Your task to perform on an android device: Turn on the flashlight Image 0: 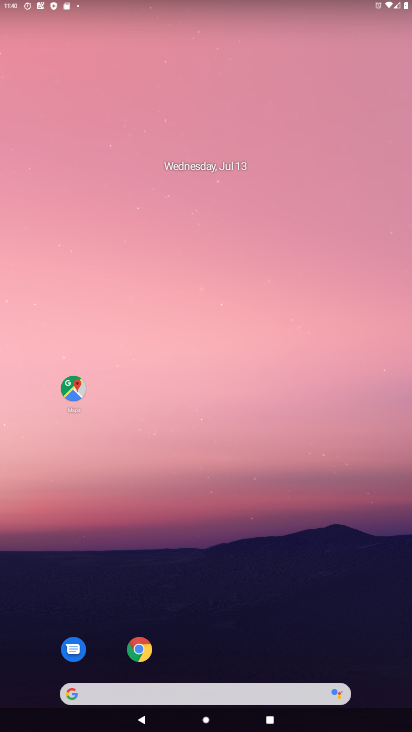
Step 0: drag from (173, 690) to (246, 293)
Your task to perform on an android device: Turn on the flashlight Image 1: 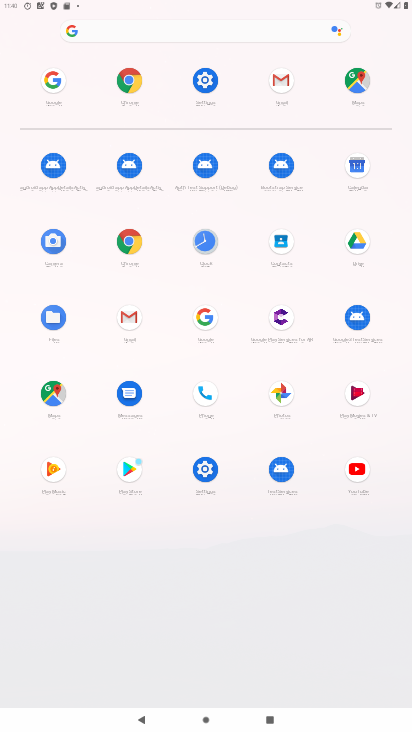
Step 1: click (206, 80)
Your task to perform on an android device: Turn on the flashlight Image 2: 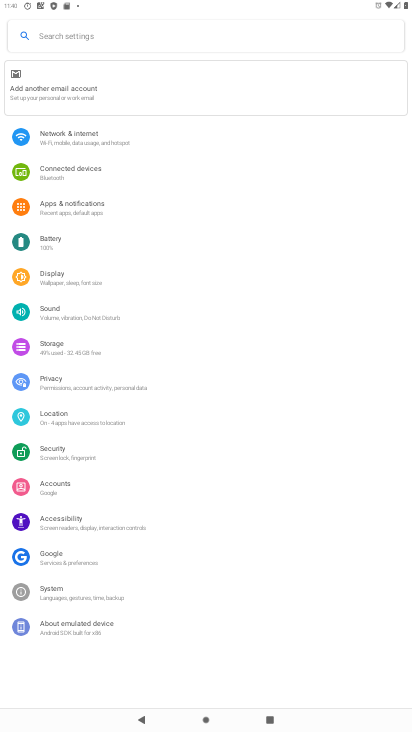
Step 2: click (84, 275)
Your task to perform on an android device: Turn on the flashlight Image 3: 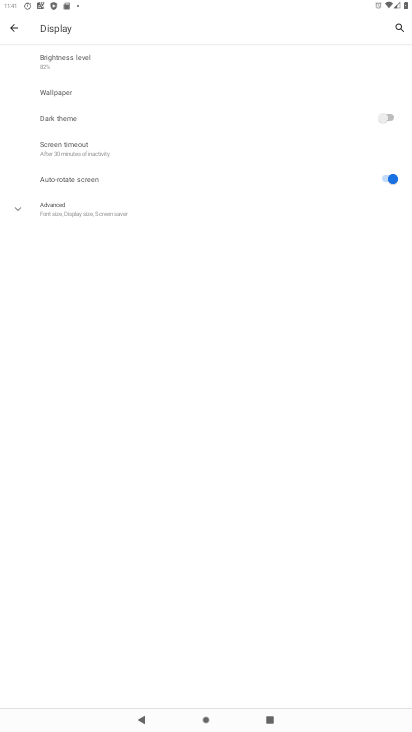
Step 3: click (79, 144)
Your task to perform on an android device: Turn on the flashlight Image 4: 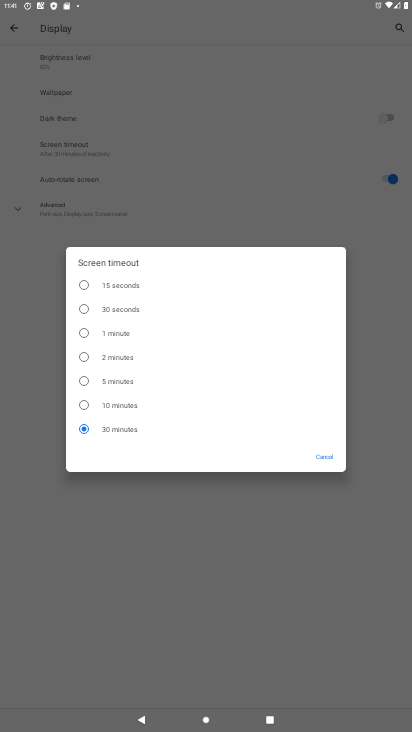
Step 4: click (158, 496)
Your task to perform on an android device: Turn on the flashlight Image 5: 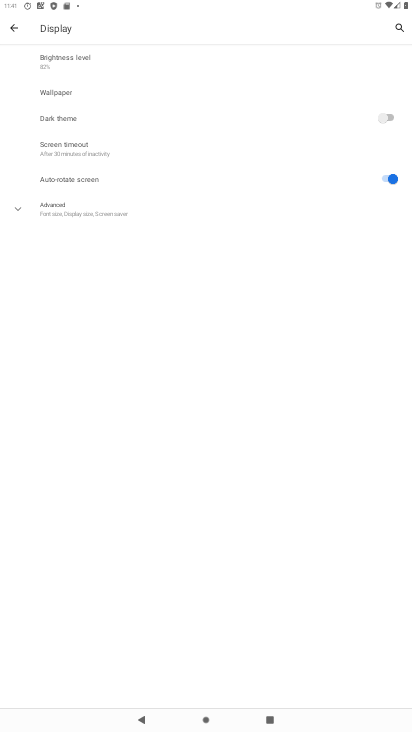
Step 5: click (106, 216)
Your task to perform on an android device: Turn on the flashlight Image 6: 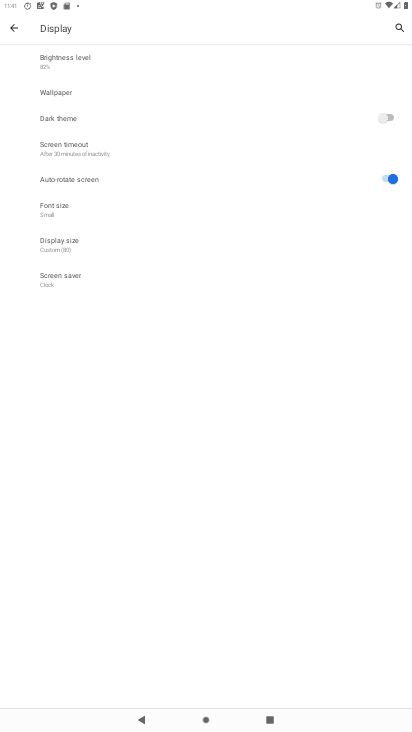
Step 6: click (78, 275)
Your task to perform on an android device: Turn on the flashlight Image 7: 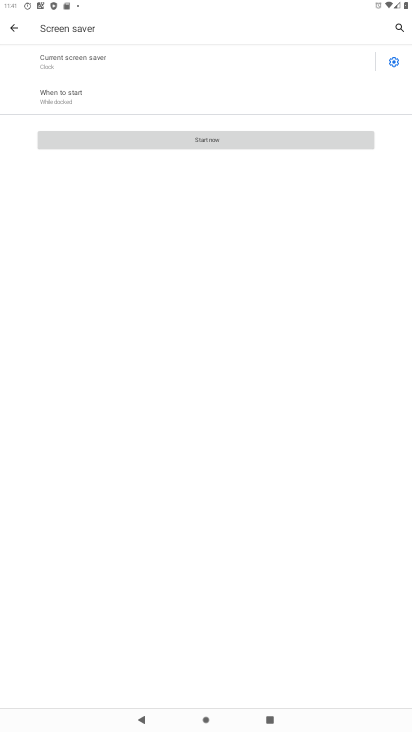
Step 7: click (391, 61)
Your task to perform on an android device: Turn on the flashlight Image 8: 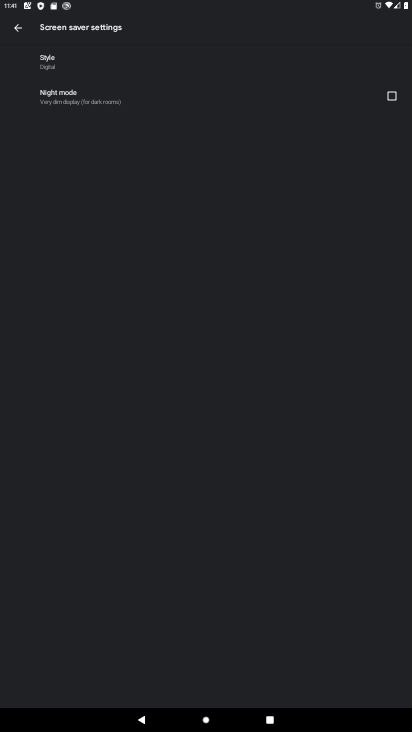
Step 8: press back button
Your task to perform on an android device: Turn on the flashlight Image 9: 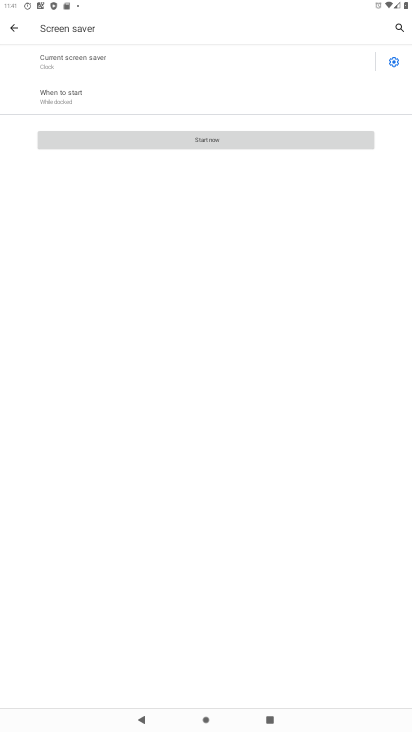
Step 9: press back button
Your task to perform on an android device: Turn on the flashlight Image 10: 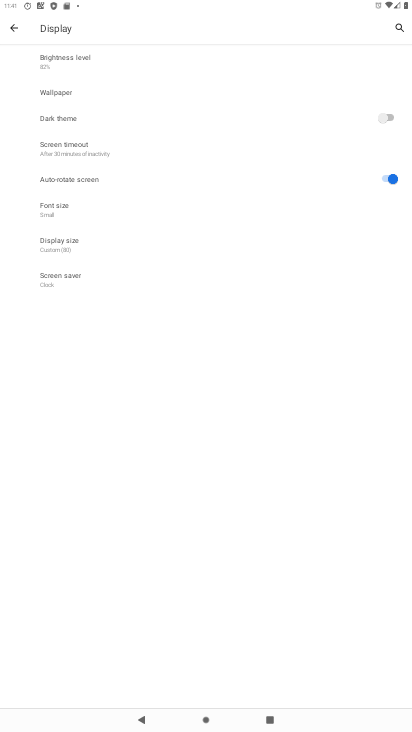
Step 10: press back button
Your task to perform on an android device: Turn on the flashlight Image 11: 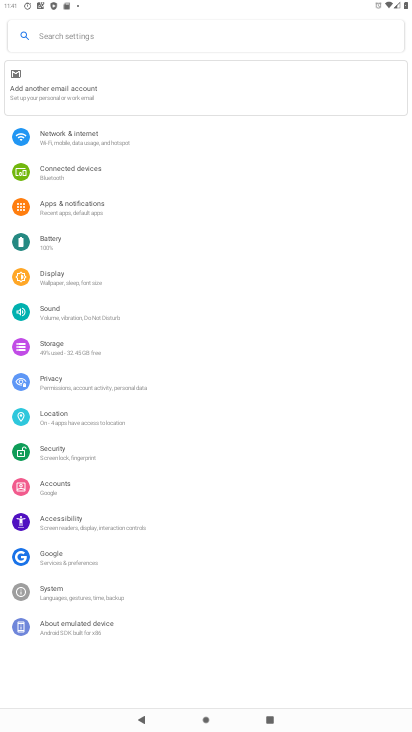
Step 11: click (114, 321)
Your task to perform on an android device: Turn on the flashlight Image 12: 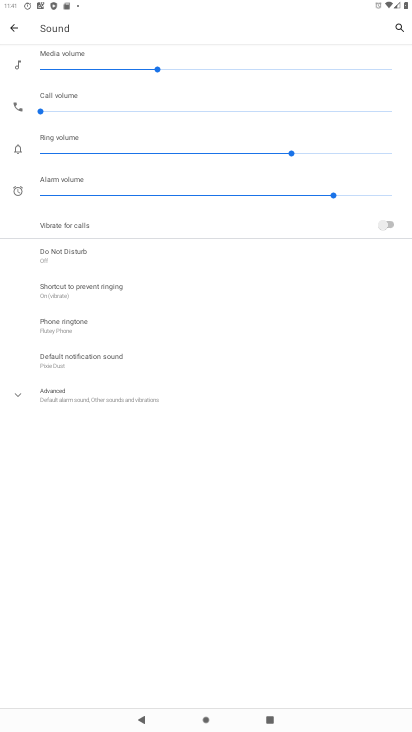
Step 12: task complete